Your task to perform on an android device: change the clock display to analog Image 0: 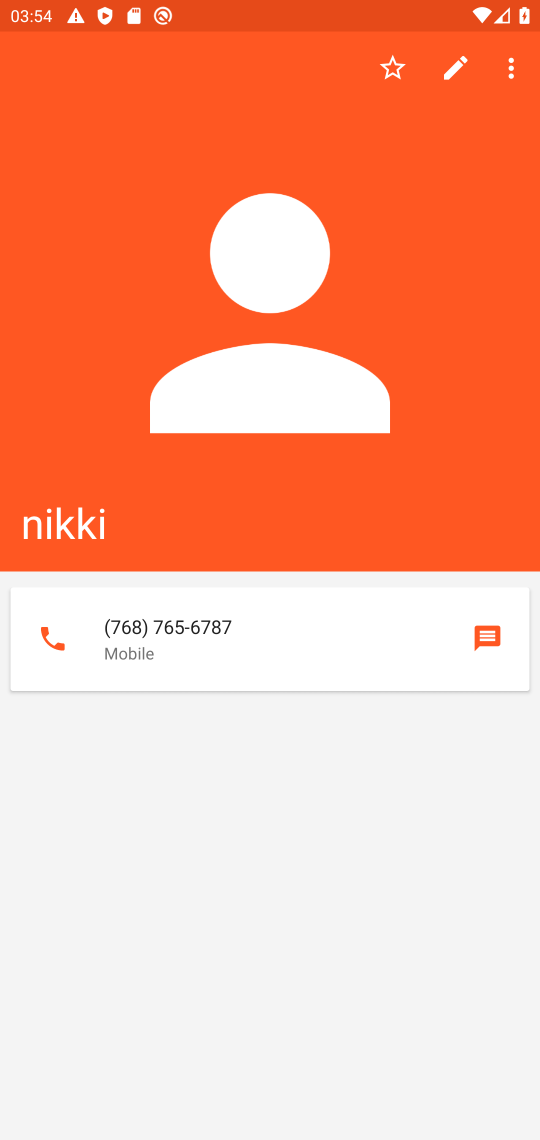
Step 0: press home button
Your task to perform on an android device: change the clock display to analog Image 1: 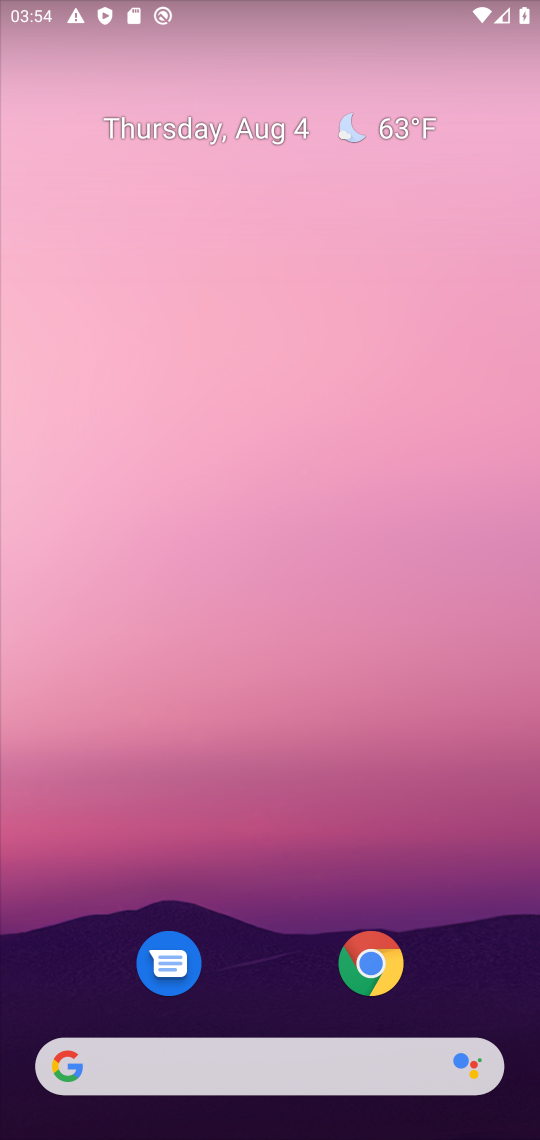
Step 1: drag from (447, 957) to (470, 15)
Your task to perform on an android device: change the clock display to analog Image 2: 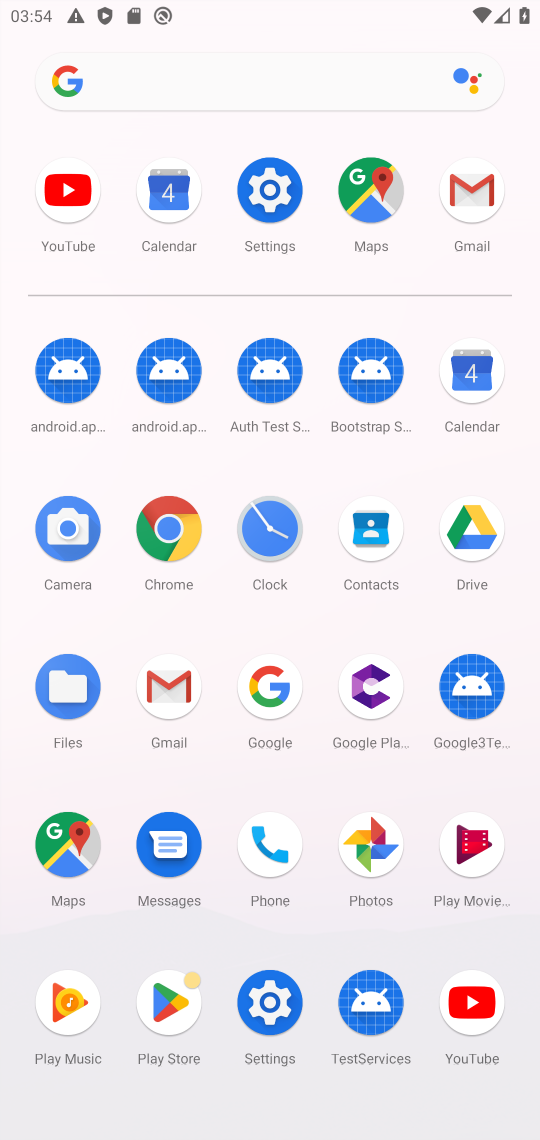
Step 2: click (261, 528)
Your task to perform on an android device: change the clock display to analog Image 3: 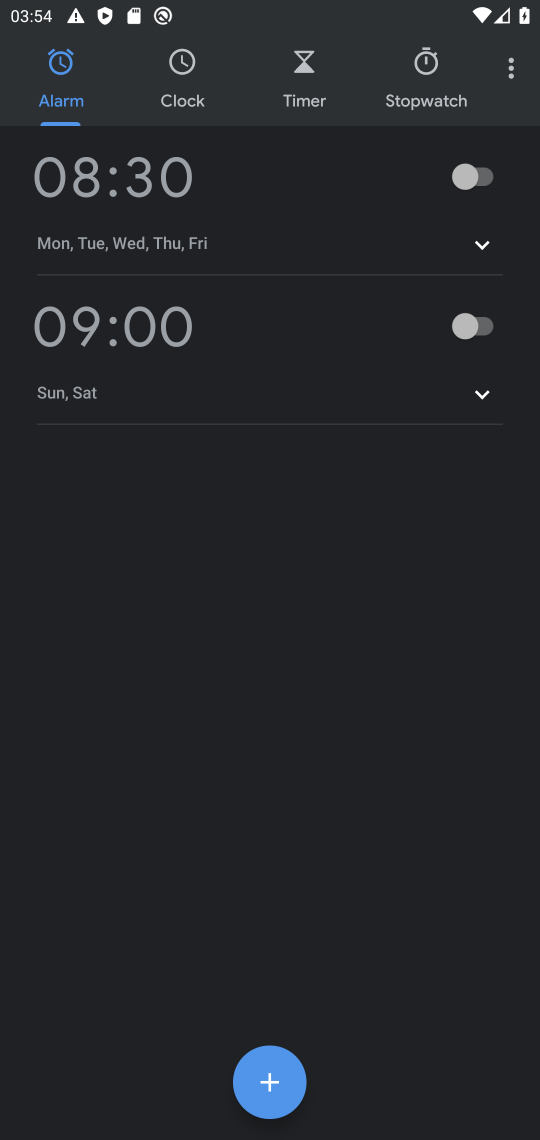
Step 3: click (516, 84)
Your task to perform on an android device: change the clock display to analog Image 4: 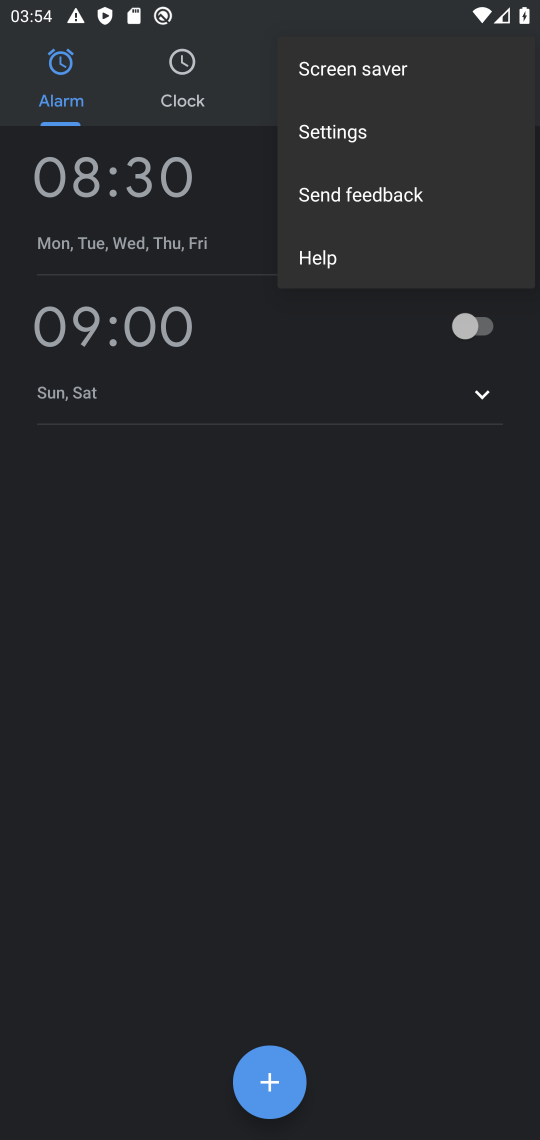
Step 4: click (376, 153)
Your task to perform on an android device: change the clock display to analog Image 5: 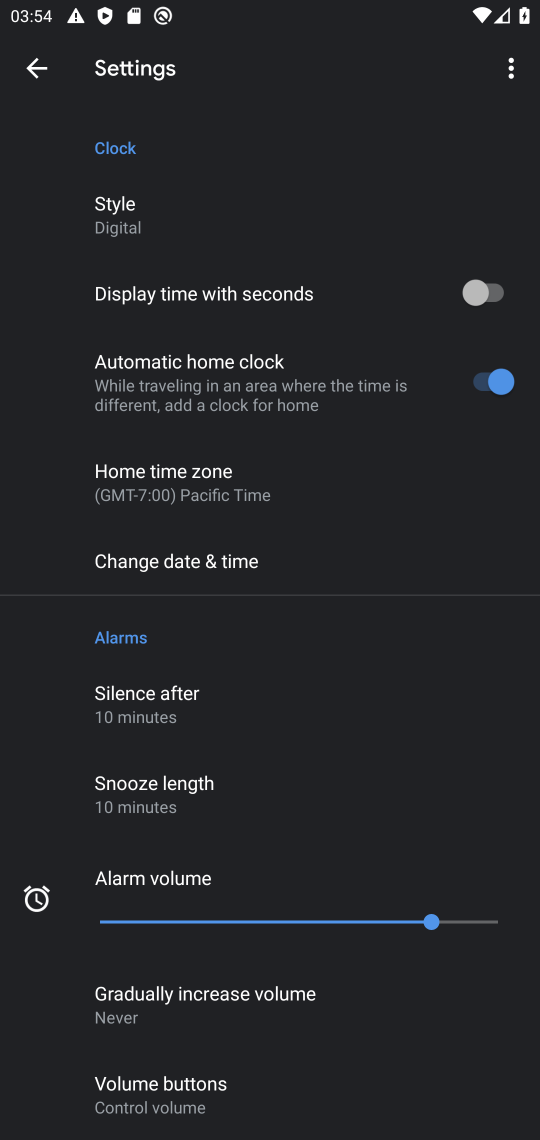
Step 5: click (135, 242)
Your task to perform on an android device: change the clock display to analog Image 6: 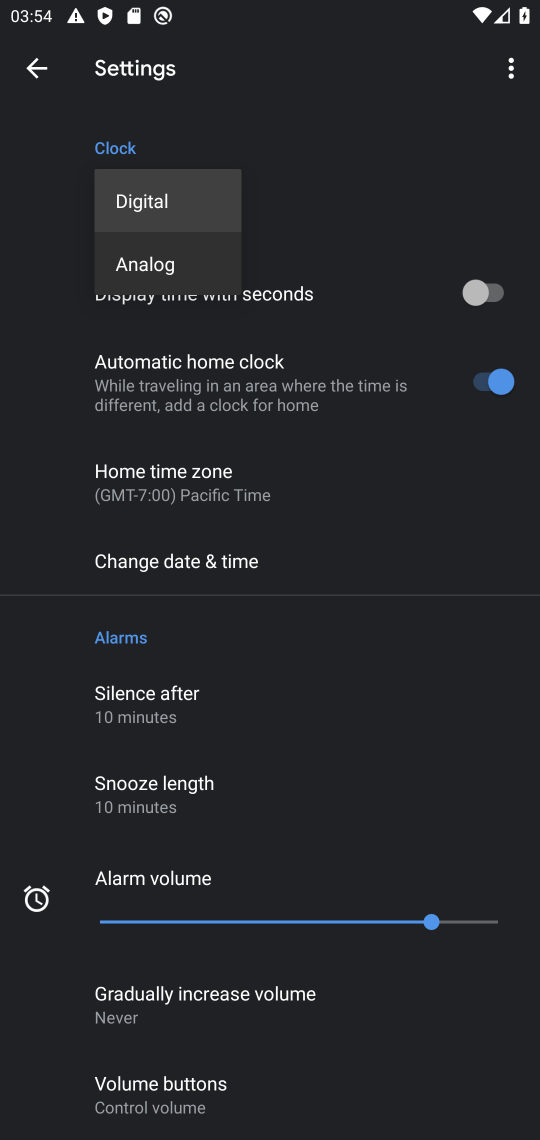
Step 6: click (129, 270)
Your task to perform on an android device: change the clock display to analog Image 7: 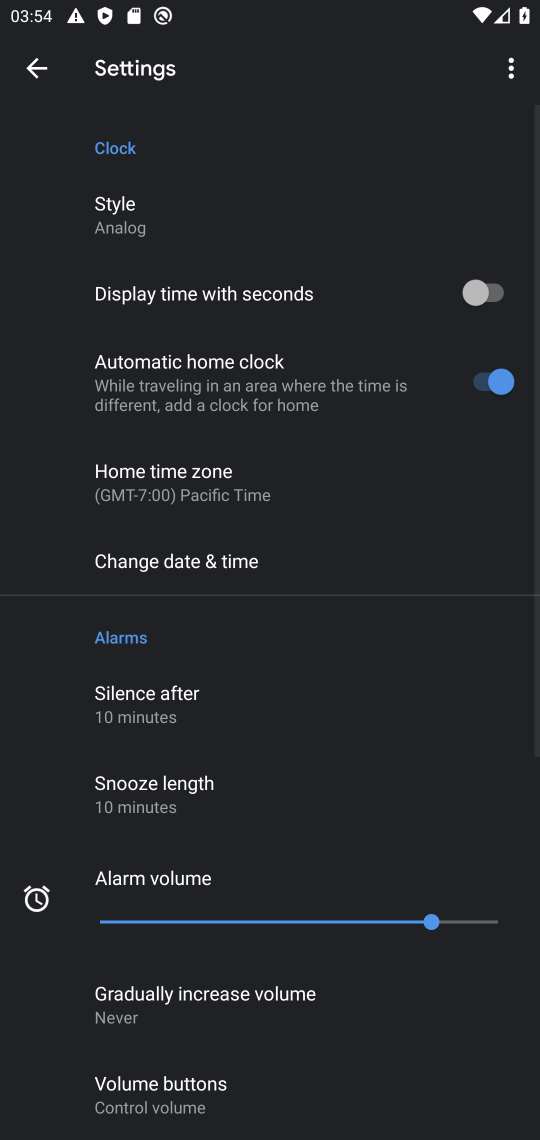
Step 7: task complete